Your task to perform on an android device: Go to display settings Image 0: 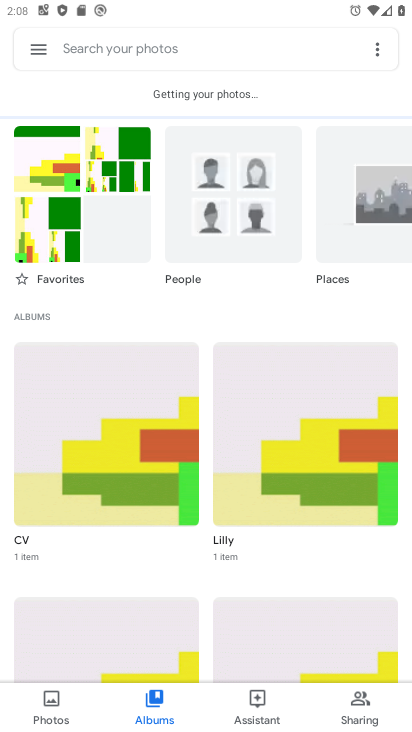
Step 0: press home button
Your task to perform on an android device: Go to display settings Image 1: 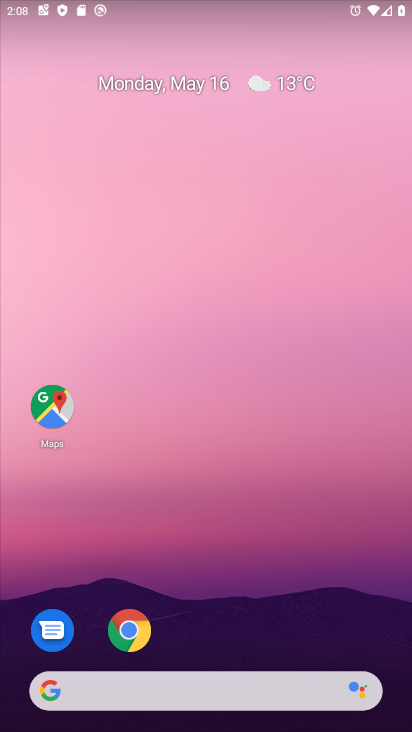
Step 1: drag from (258, 397) to (258, 131)
Your task to perform on an android device: Go to display settings Image 2: 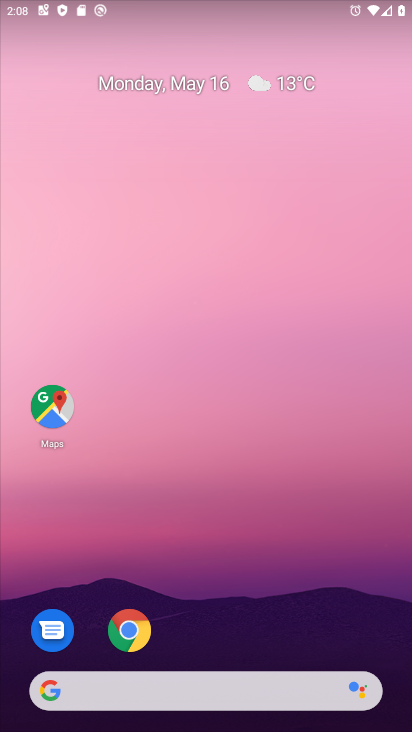
Step 2: drag from (216, 601) to (250, 44)
Your task to perform on an android device: Go to display settings Image 3: 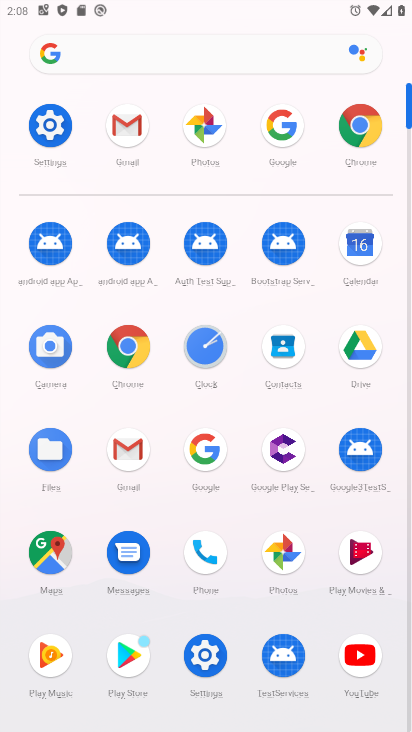
Step 3: click (55, 125)
Your task to perform on an android device: Go to display settings Image 4: 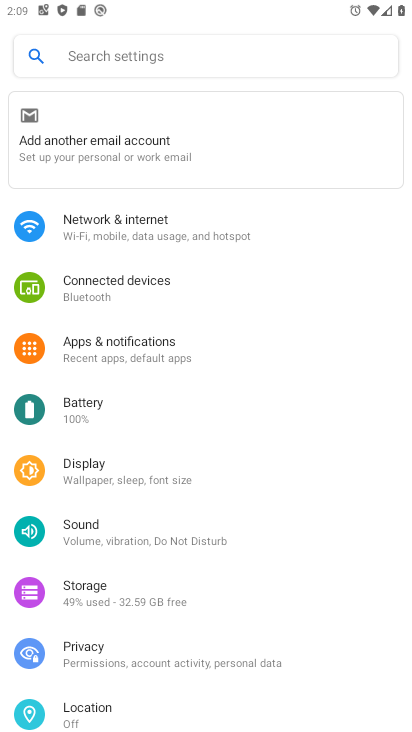
Step 4: click (123, 471)
Your task to perform on an android device: Go to display settings Image 5: 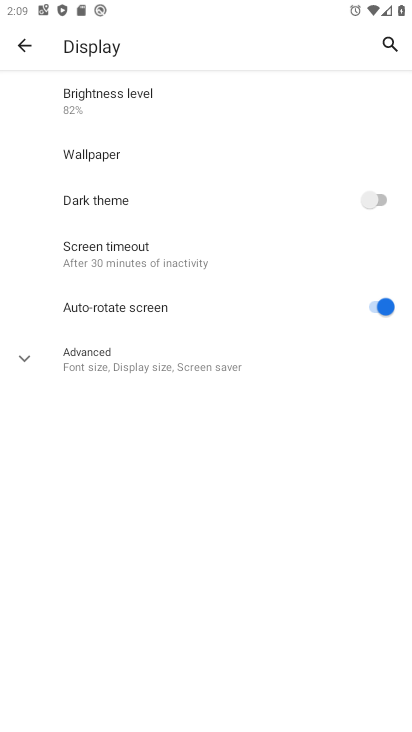
Step 5: task complete